Your task to perform on an android device: Search for pizza restaurants on Maps Image 0: 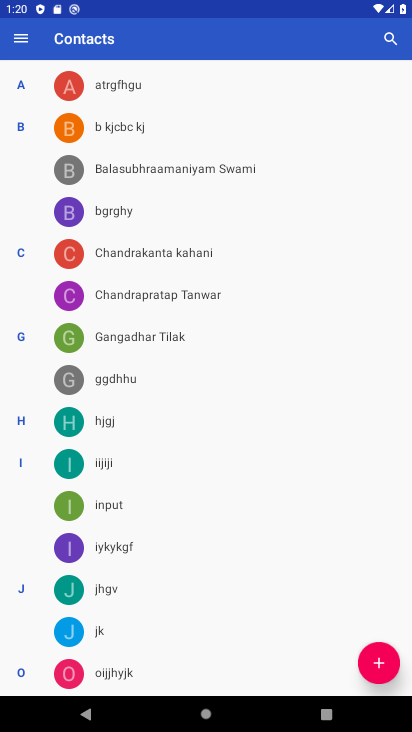
Step 0: press home button
Your task to perform on an android device: Search for pizza restaurants on Maps Image 1: 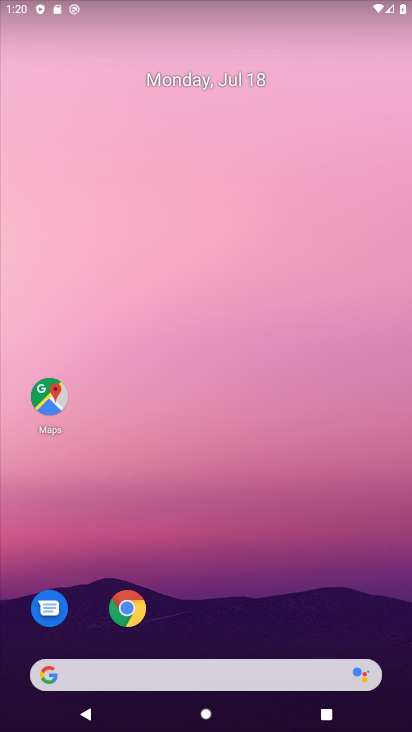
Step 1: drag from (230, 625) to (226, 232)
Your task to perform on an android device: Search for pizza restaurants on Maps Image 2: 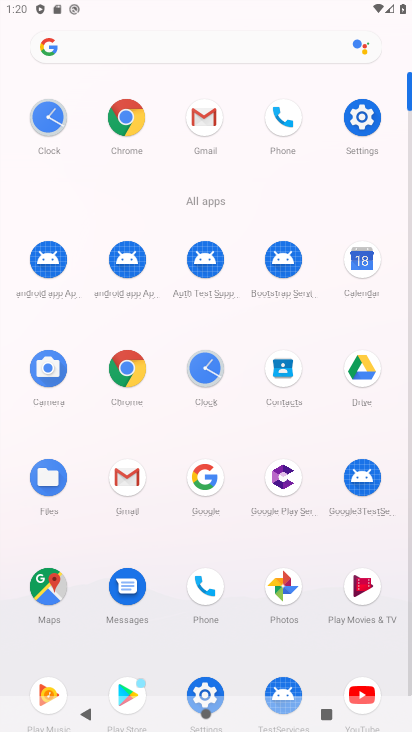
Step 2: click (41, 582)
Your task to perform on an android device: Search for pizza restaurants on Maps Image 3: 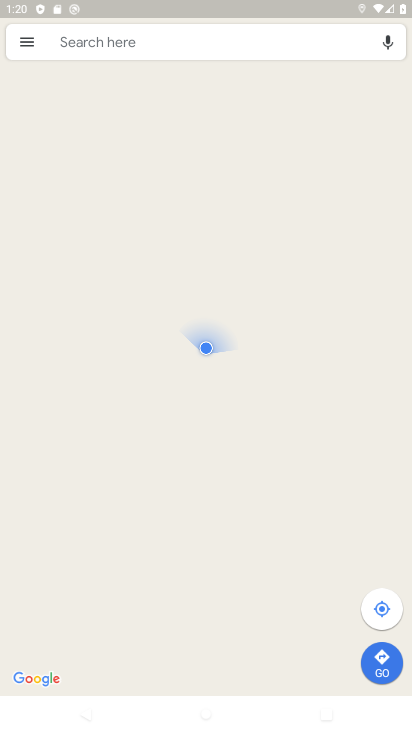
Step 3: click (165, 41)
Your task to perform on an android device: Search for pizza restaurants on Maps Image 4: 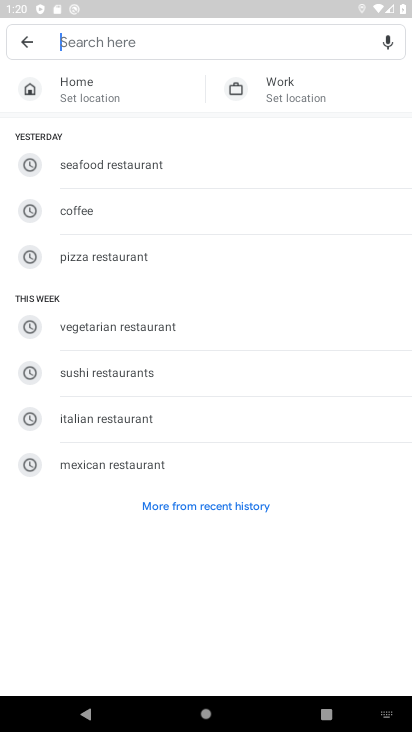
Step 4: type "Pizza restauants"
Your task to perform on an android device: Search for pizza restaurants on Maps Image 5: 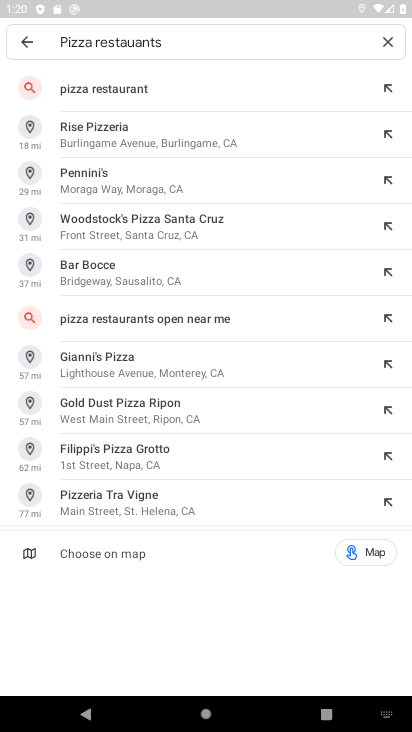
Step 5: click (91, 91)
Your task to perform on an android device: Search for pizza restaurants on Maps Image 6: 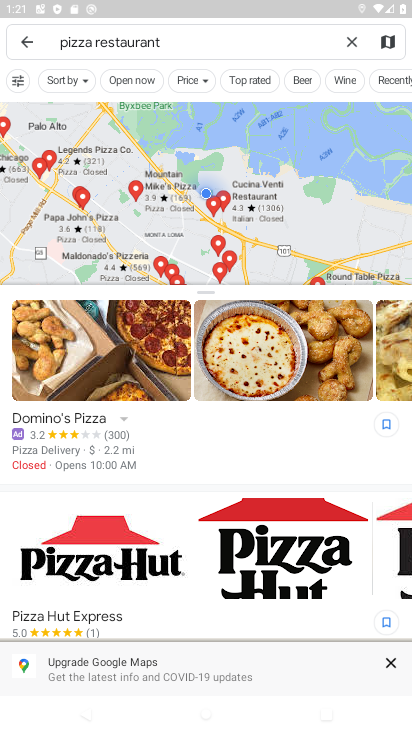
Step 6: task complete